Your task to perform on an android device: Show me popular videos on Youtube Image 0: 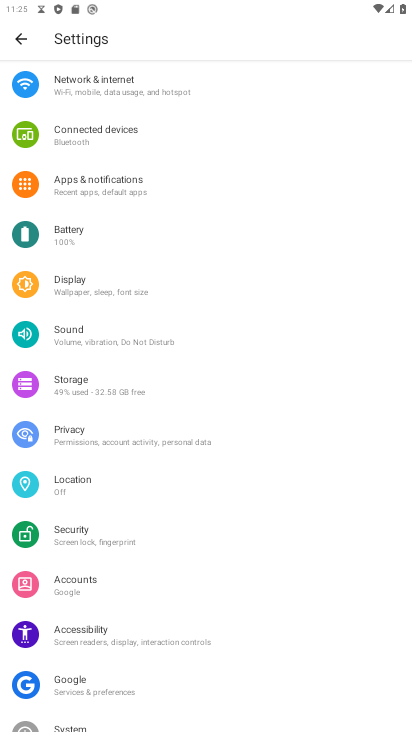
Step 0: press home button
Your task to perform on an android device: Show me popular videos on Youtube Image 1: 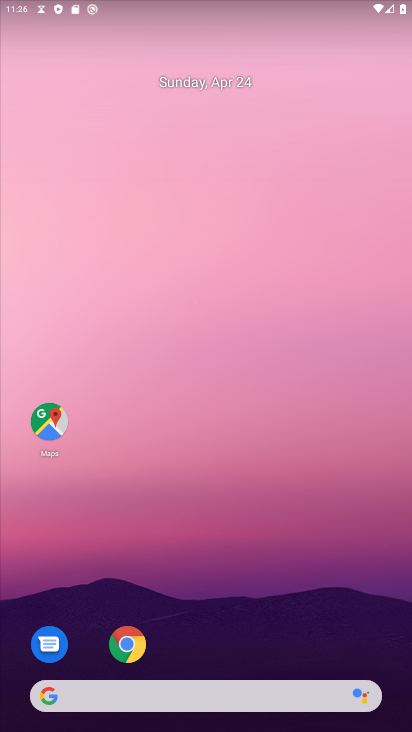
Step 1: drag from (340, 607) to (354, 48)
Your task to perform on an android device: Show me popular videos on Youtube Image 2: 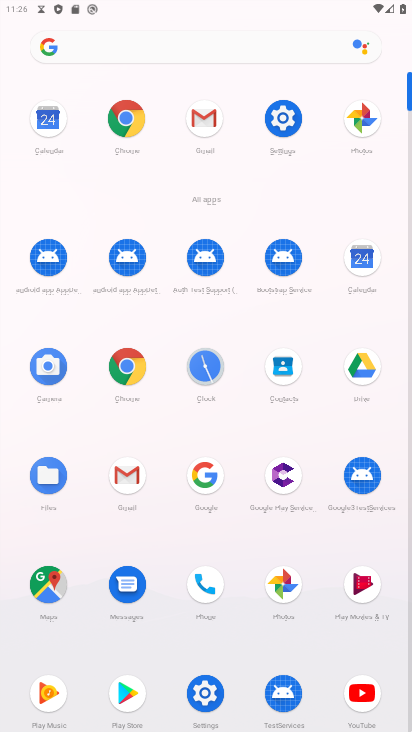
Step 2: click (362, 696)
Your task to perform on an android device: Show me popular videos on Youtube Image 3: 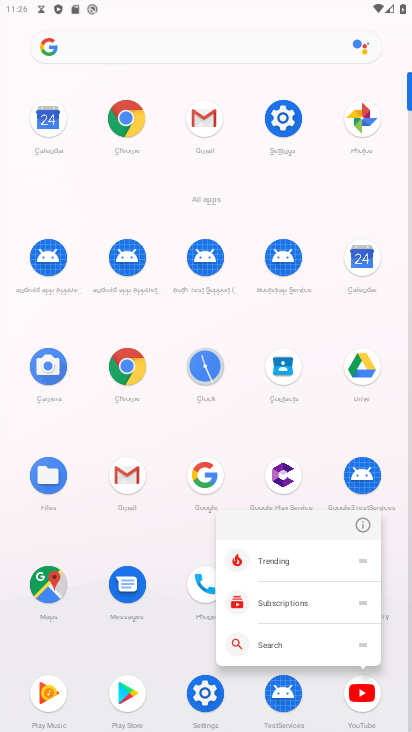
Step 3: click (364, 691)
Your task to perform on an android device: Show me popular videos on Youtube Image 4: 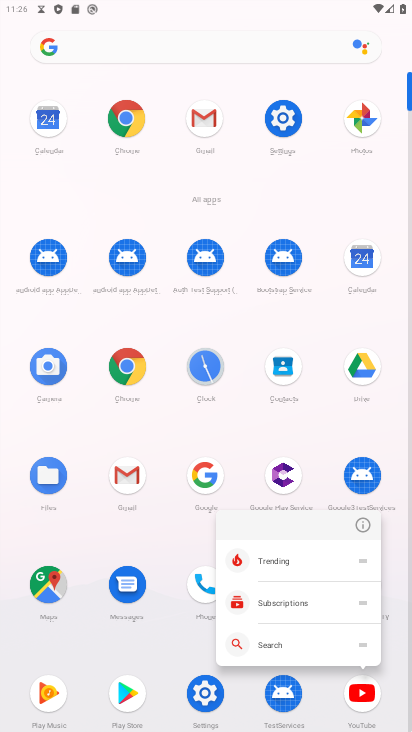
Step 4: click (355, 693)
Your task to perform on an android device: Show me popular videos on Youtube Image 5: 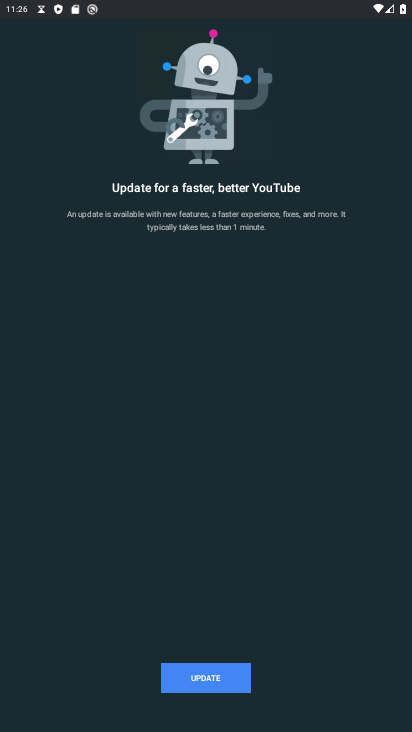
Step 5: click (199, 678)
Your task to perform on an android device: Show me popular videos on Youtube Image 6: 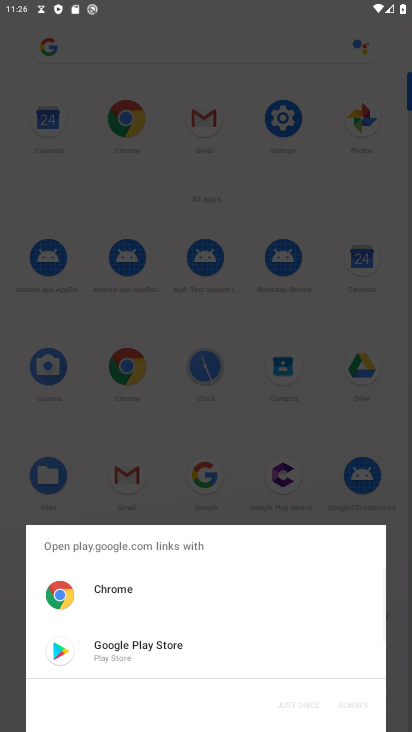
Step 6: click (183, 664)
Your task to perform on an android device: Show me popular videos on Youtube Image 7: 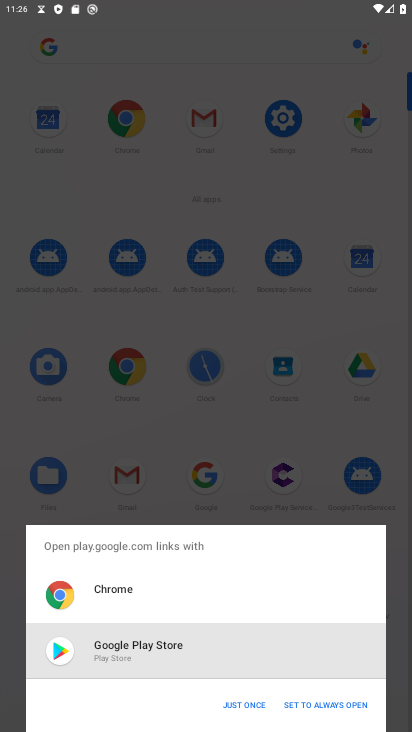
Step 7: click (253, 706)
Your task to perform on an android device: Show me popular videos on Youtube Image 8: 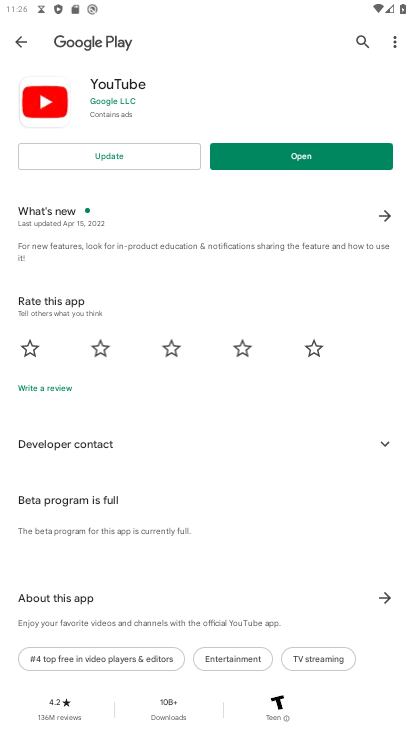
Step 8: click (86, 156)
Your task to perform on an android device: Show me popular videos on Youtube Image 9: 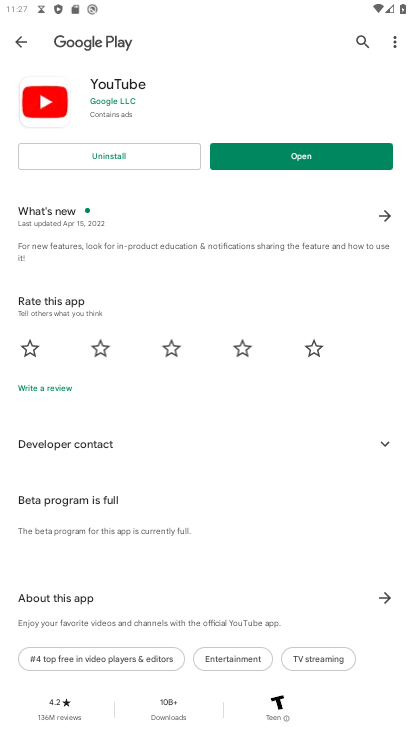
Step 9: click (306, 162)
Your task to perform on an android device: Show me popular videos on Youtube Image 10: 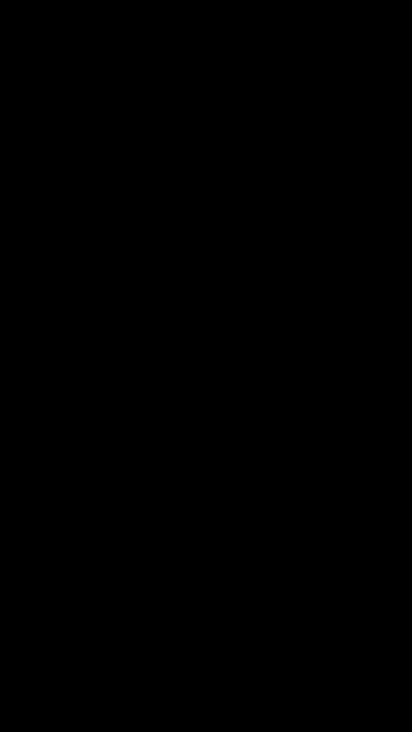
Step 10: task complete